Your task to perform on an android device: Open the stopwatch Image 0: 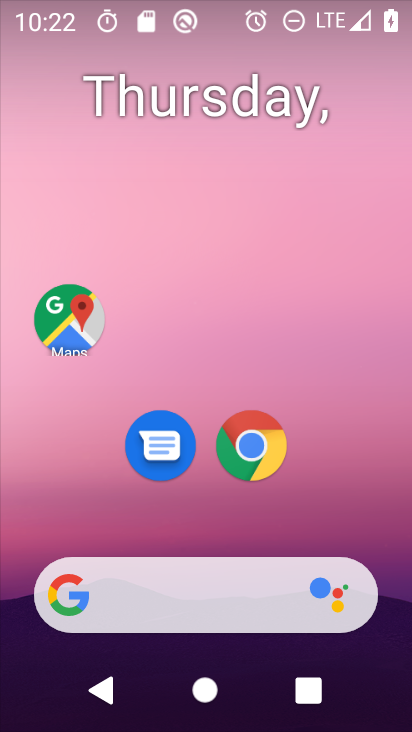
Step 0: drag from (215, 551) to (259, 112)
Your task to perform on an android device: Open the stopwatch Image 1: 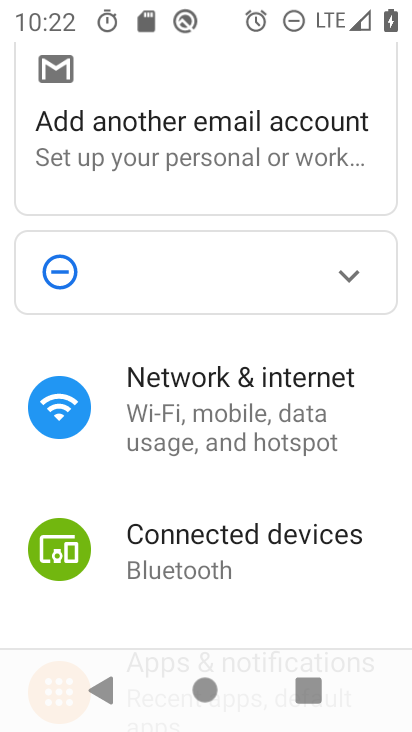
Step 1: drag from (239, 553) to (331, 279)
Your task to perform on an android device: Open the stopwatch Image 2: 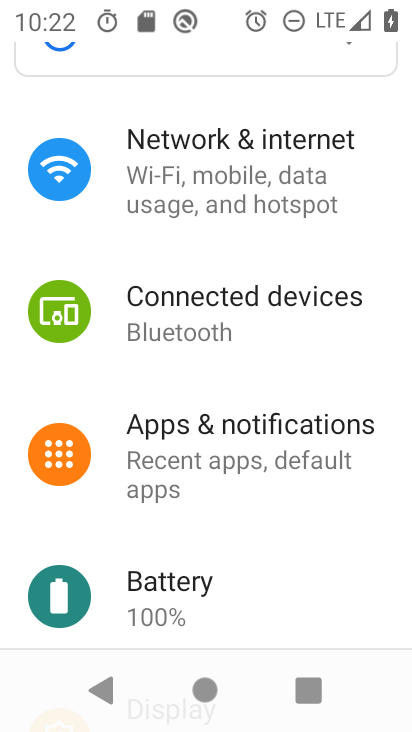
Step 2: press home button
Your task to perform on an android device: Open the stopwatch Image 3: 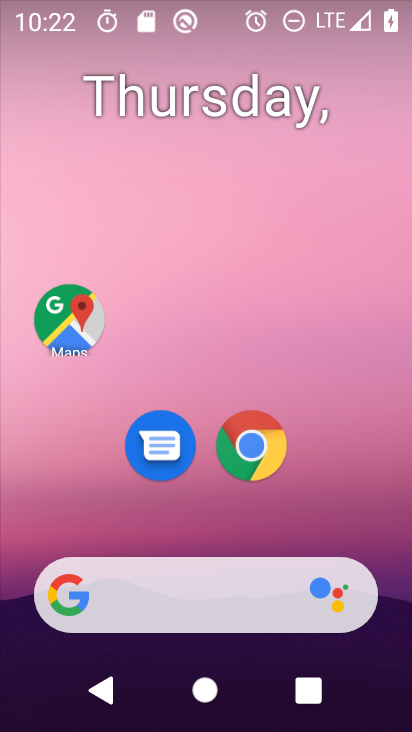
Step 3: drag from (170, 518) to (268, 180)
Your task to perform on an android device: Open the stopwatch Image 4: 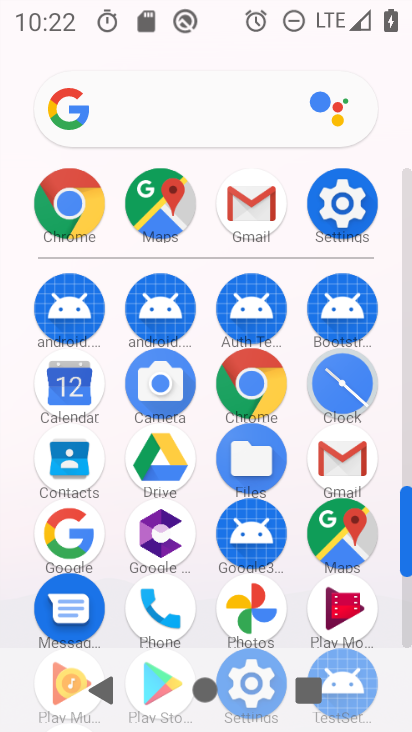
Step 4: click (331, 397)
Your task to perform on an android device: Open the stopwatch Image 5: 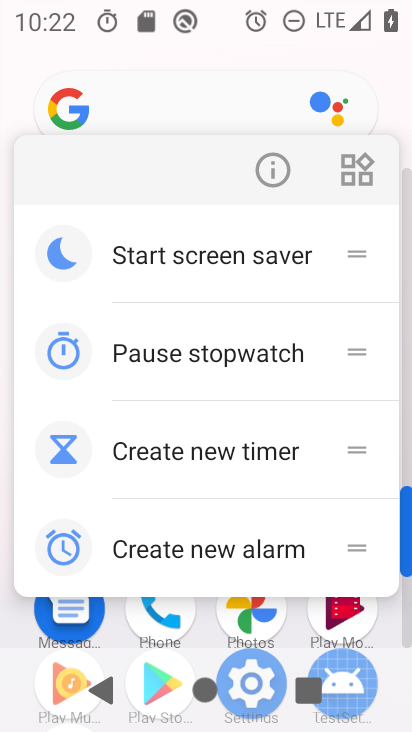
Step 5: click (269, 177)
Your task to perform on an android device: Open the stopwatch Image 6: 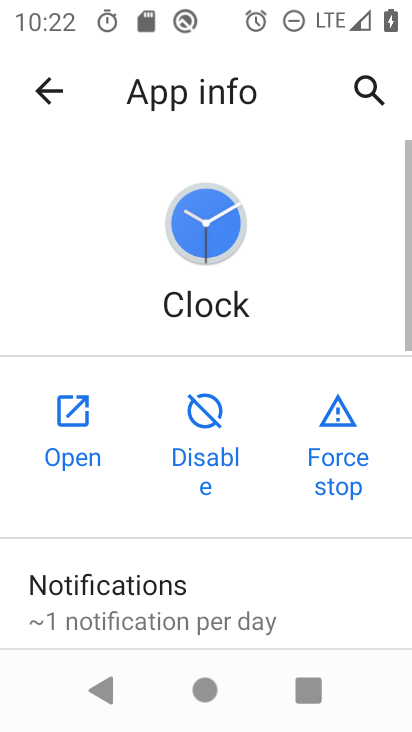
Step 6: click (77, 422)
Your task to perform on an android device: Open the stopwatch Image 7: 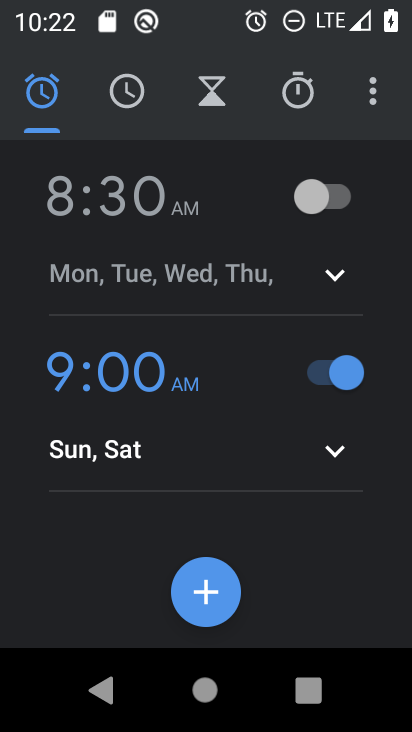
Step 7: click (317, 92)
Your task to perform on an android device: Open the stopwatch Image 8: 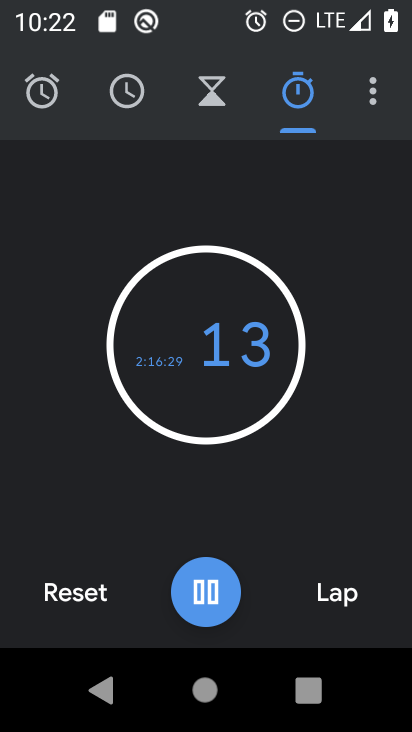
Step 8: task complete